Your task to perform on an android device: change the clock display to show seconds Image 0: 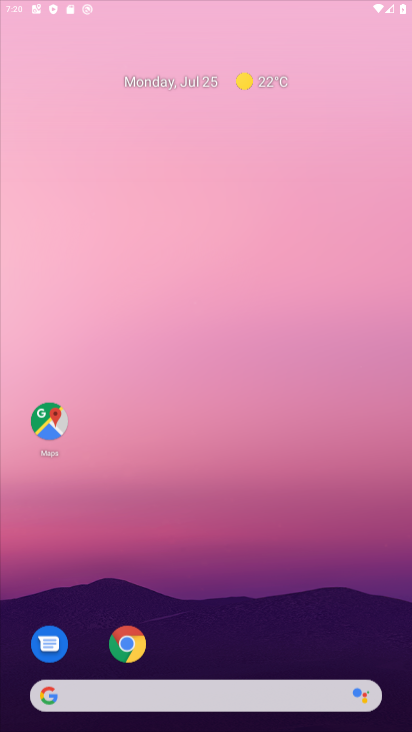
Step 0: press home button
Your task to perform on an android device: change the clock display to show seconds Image 1: 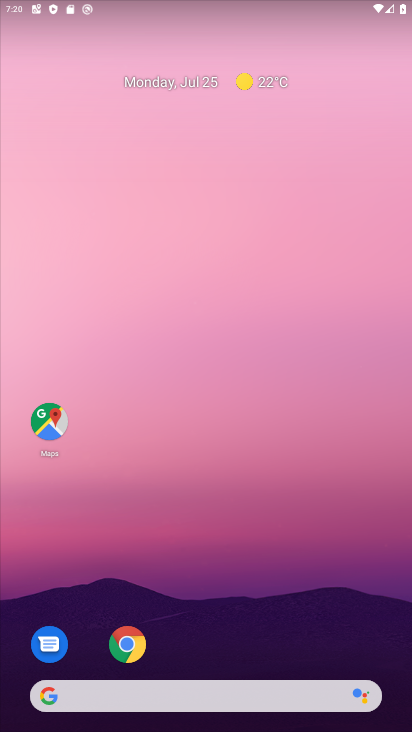
Step 1: drag from (224, 665) to (272, 69)
Your task to perform on an android device: change the clock display to show seconds Image 2: 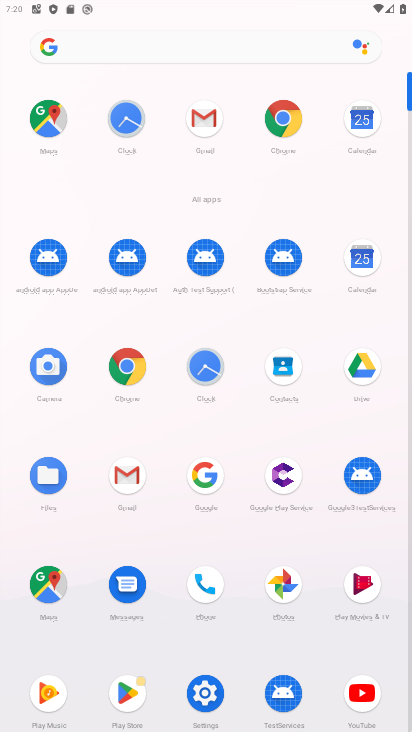
Step 2: click (205, 364)
Your task to perform on an android device: change the clock display to show seconds Image 3: 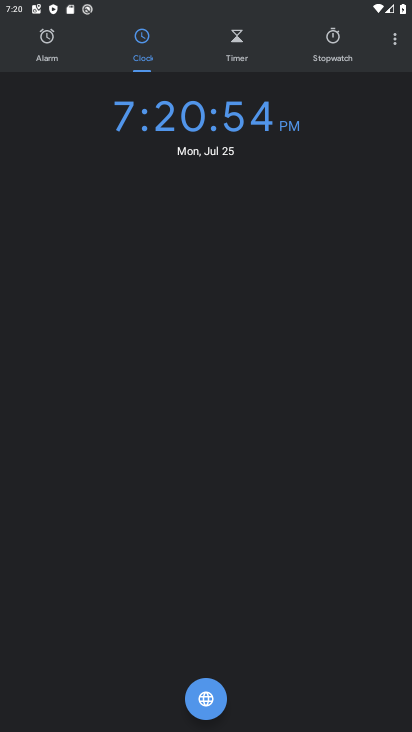
Step 3: click (390, 36)
Your task to perform on an android device: change the clock display to show seconds Image 4: 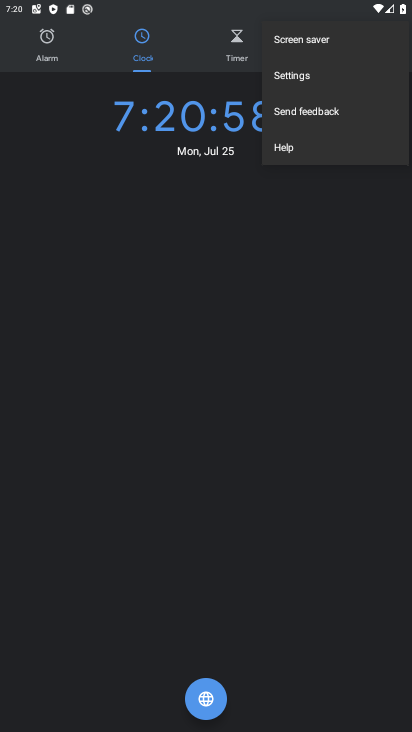
Step 4: click (322, 77)
Your task to perform on an android device: change the clock display to show seconds Image 5: 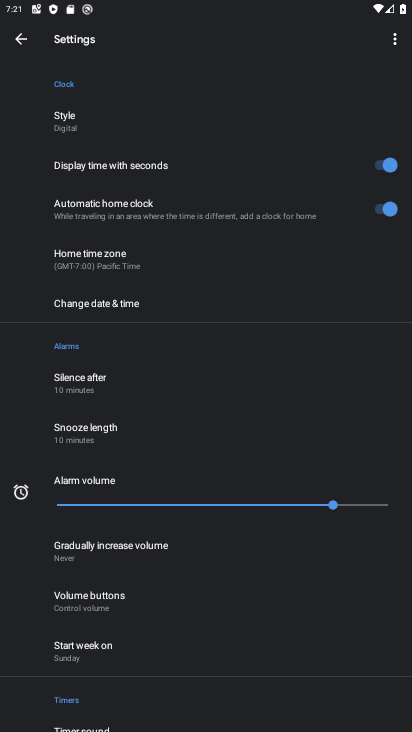
Step 5: click (383, 160)
Your task to perform on an android device: change the clock display to show seconds Image 6: 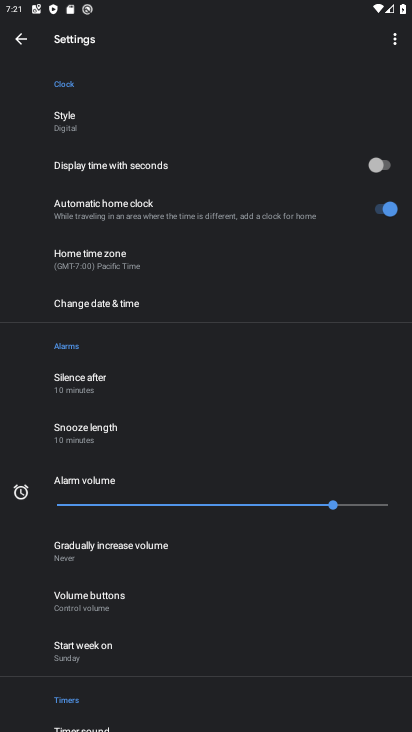
Step 6: task complete